Your task to perform on an android device: Open Google Chrome Image 0: 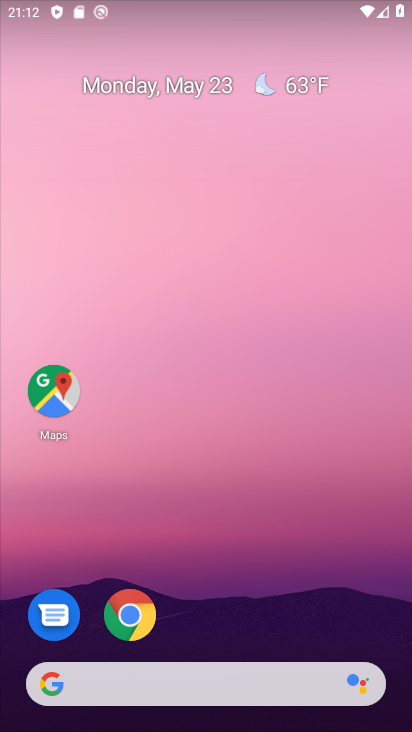
Step 0: click (146, 611)
Your task to perform on an android device: Open Google Chrome Image 1: 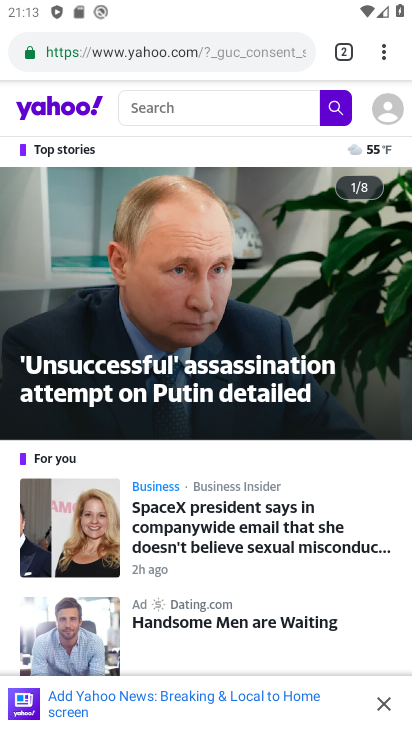
Step 1: task complete